Your task to perform on an android device: Open Chrome and go to settings Image 0: 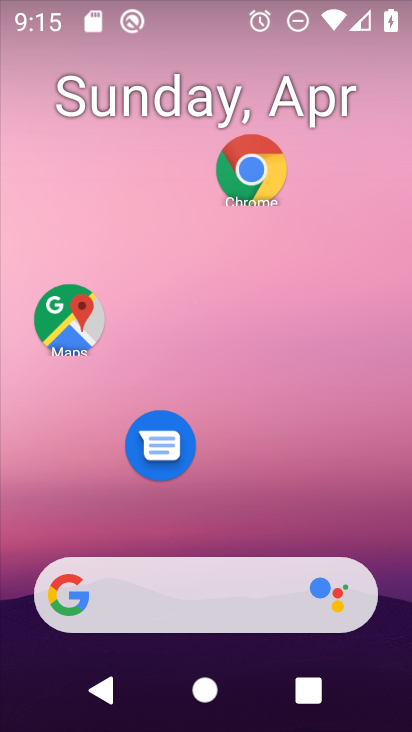
Step 0: click (261, 524)
Your task to perform on an android device: Open Chrome and go to settings Image 1: 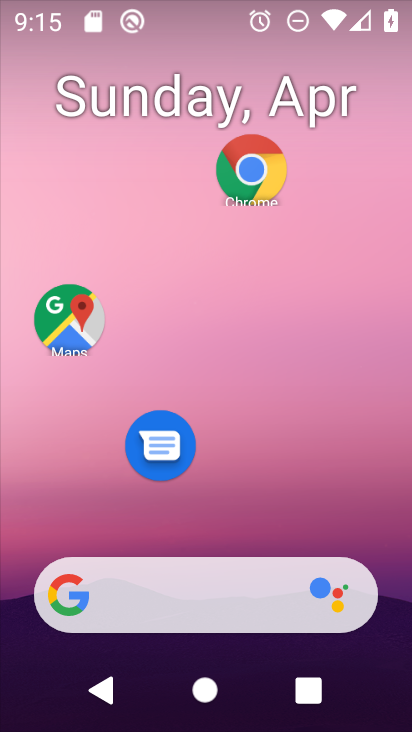
Step 1: click (258, 173)
Your task to perform on an android device: Open Chrome and go to settings Image 2: 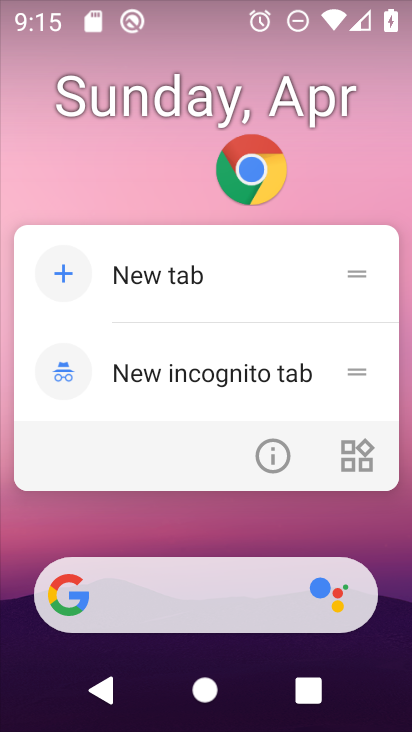
Step 2: click (258, 173)
Your task to perform on an android device: Open Chrome and go to settings Image 3: 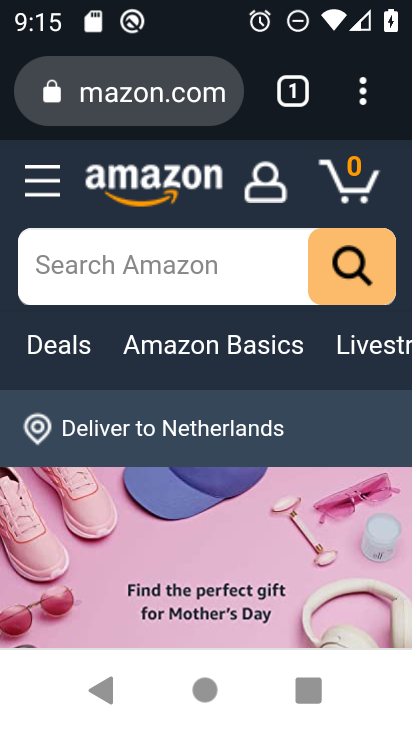
Step 3: click (358, 88)
Your task to perform on an android device: Open Chrome and go to settings Image 4: 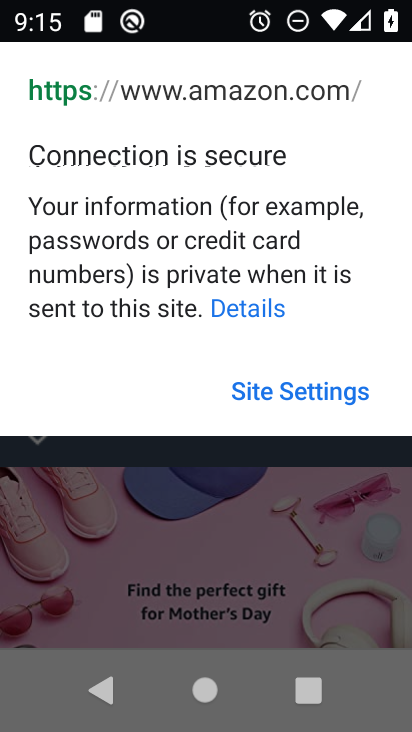
Step 4: click (213, 449)
Your task to perform on an android device: Open Chrome and go to settings Image 5: 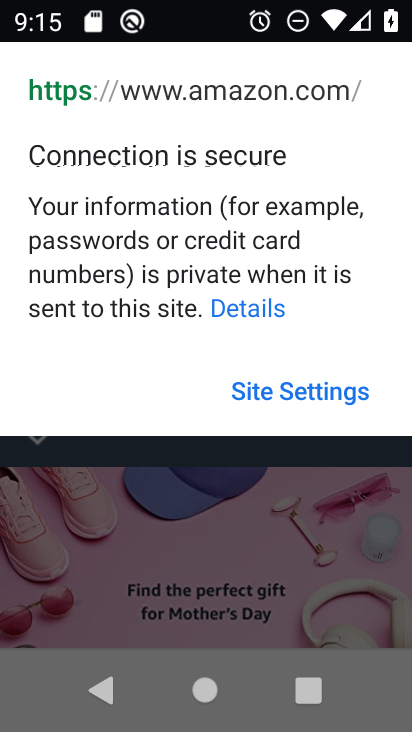
Step 5: click (247, 431)
Your task to perform on an android device: Open Chrome and go to settings Image 6: 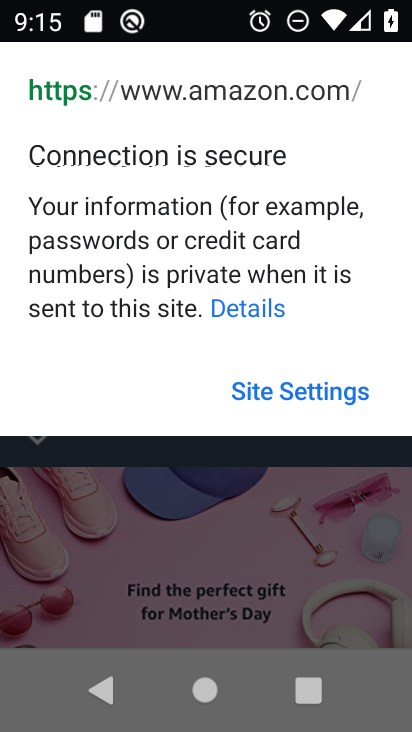
Step 6: press back button
Your task to perform on an android device: Open Chrome and go to settings Image 7: 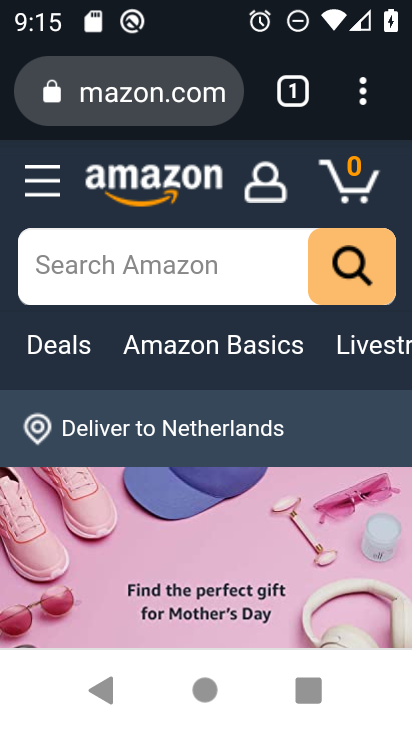
Step 7: click (356, 87)
Your task to perform on an android device: Open Chrome and go to settings Image 8: 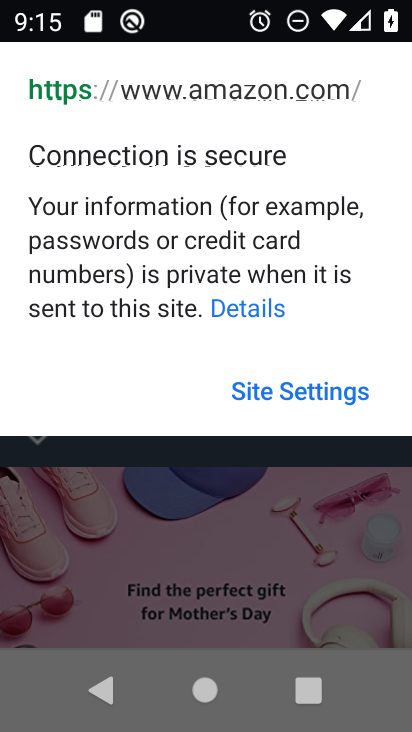
Step 8: press back button
Your task to perform on an android device: Open Chrome and go to settings Image 9: 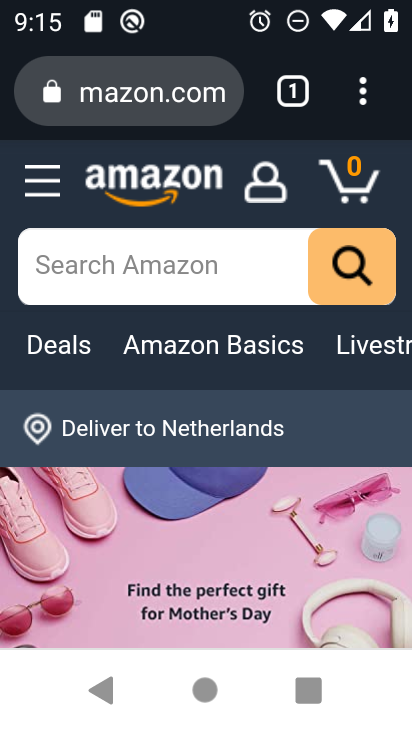
Step 9: click (362, 89)
Your task to perform on an android device: Open Chrome and go to settings Image 10: 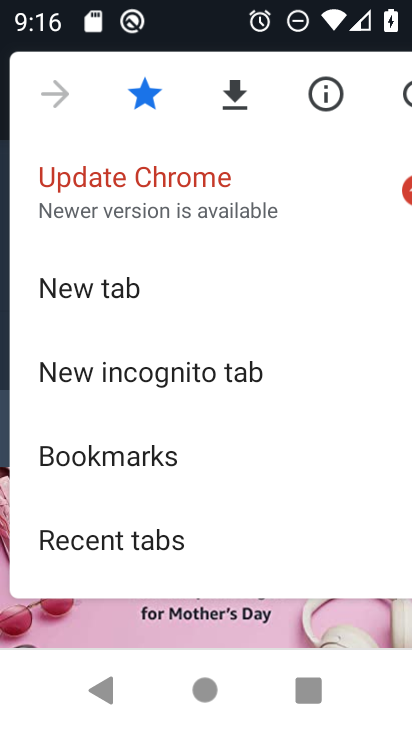
Step 10: drag from (196, 505) to (232, 136)
Your task to perform on an android device: Open Chrome and go to settings Image 11: 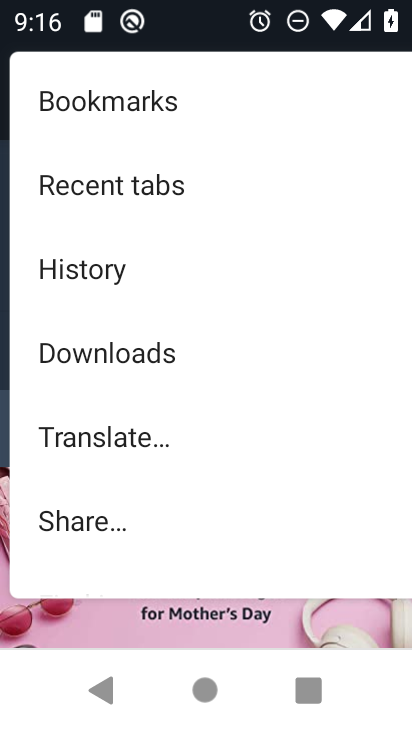
Step 11: drag from (241, 502) to (213, 200)
Your task to perform on an android device: Open Chrome and go to settings Image 12: 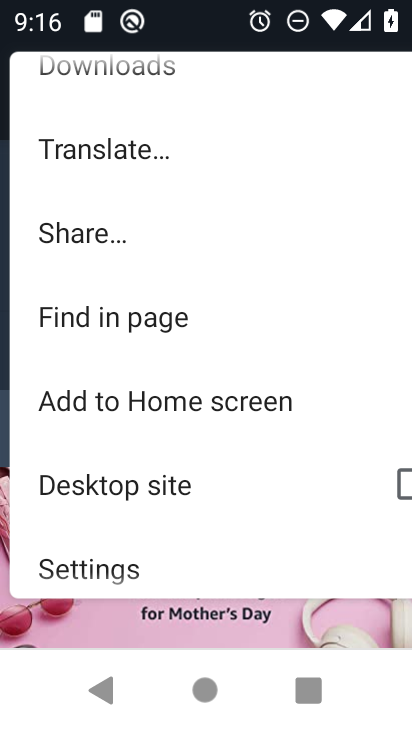
Step 12: click (103, 562)
Your task to perform on an android device: Open Chrome and go to settings Image 13: 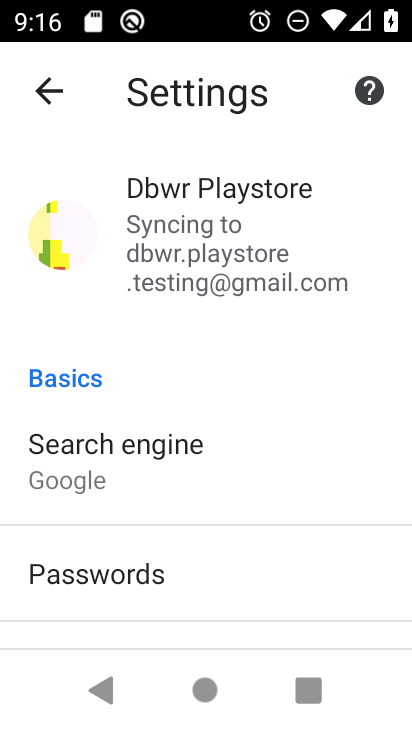
Step 13: task complete